Your task to perform on an android device: What's on my calendar tomorrow? Image 0: 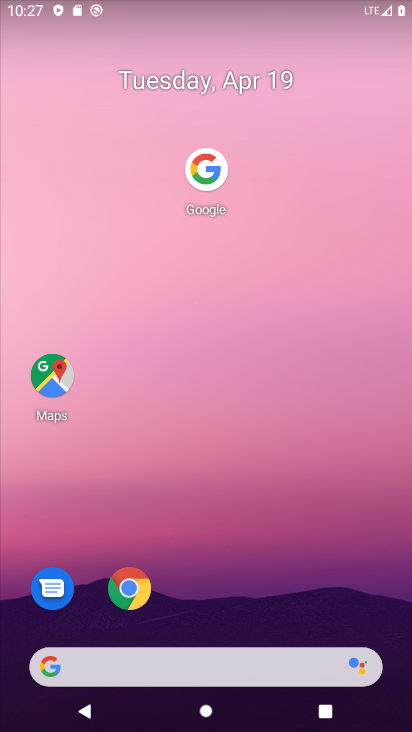
Step 0: drag from (248, 598) to (236, 7)
Your task to perform on an android device: What's on my calendar tomorrow? Image 1: 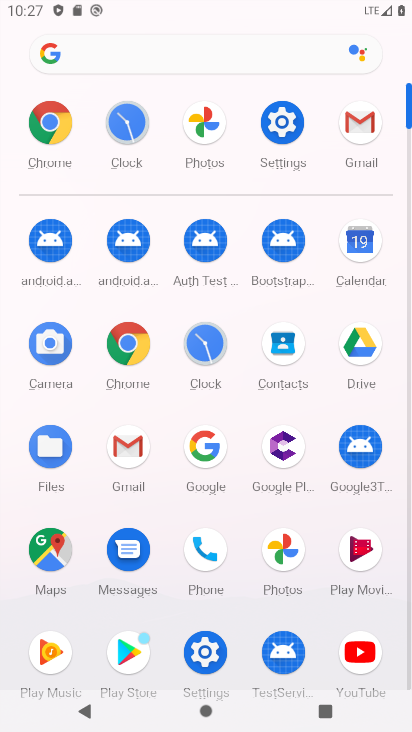
Step 1: click (357, 244)
Your task to perform on an android device: What's on my calendar tomorrow? Image 2: 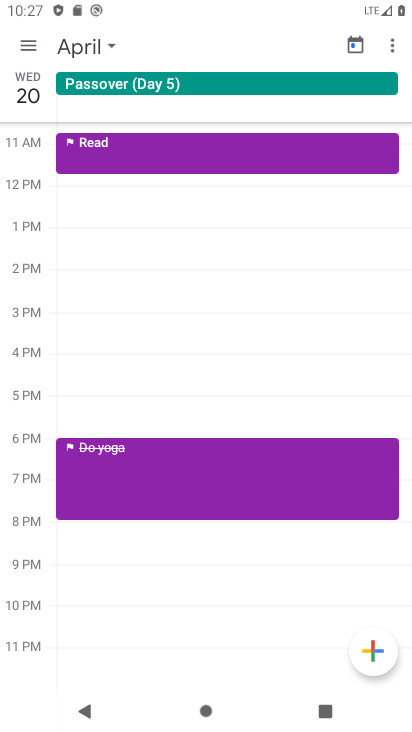
Step 2: task complete